Your task to perform on an android device: turn on sleep mode Image 0: 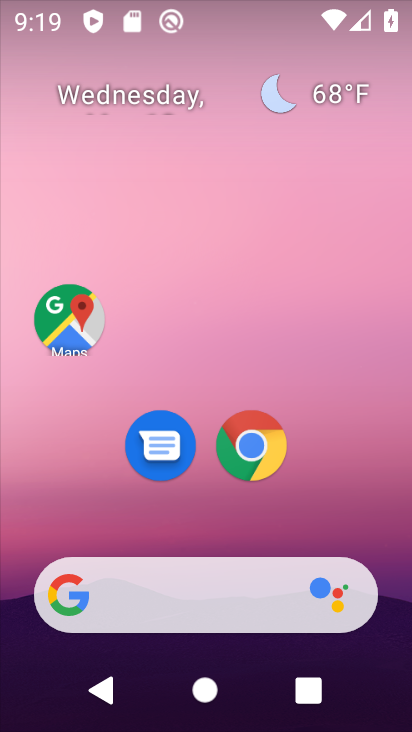
Step 0: drag from (373, 353) to (401, 3)
Your task to perform on an android device: turn on sleep mode Image 1: 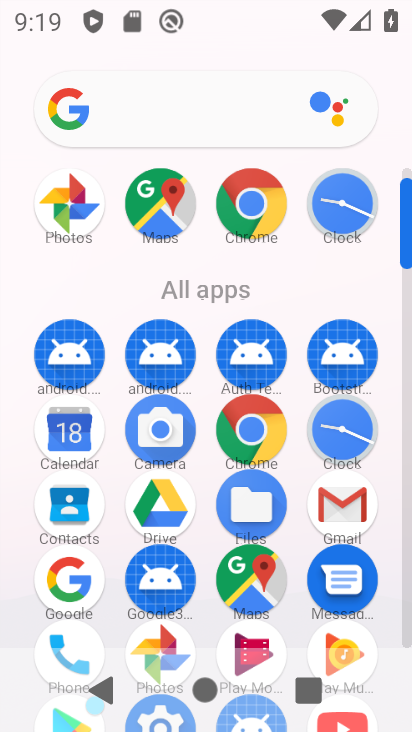
Step 1: drag from (388, 530) to (412, 184)
Your task to perform on an android device: turn on sleep mode Image 2: 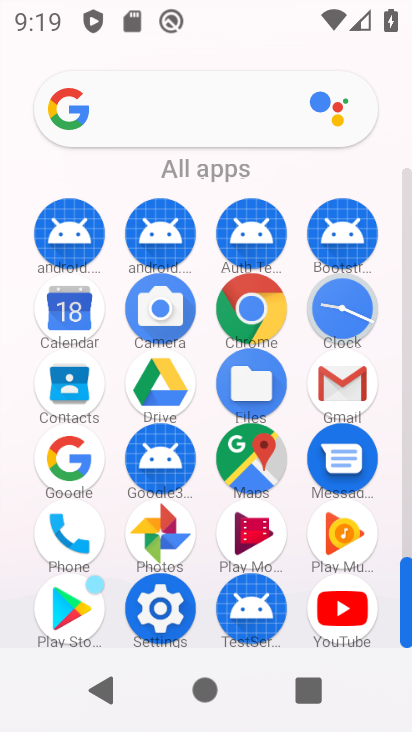
Step 2: click (165, 605)
Your task to perform on an android device: turn on sleep mode Image 3: 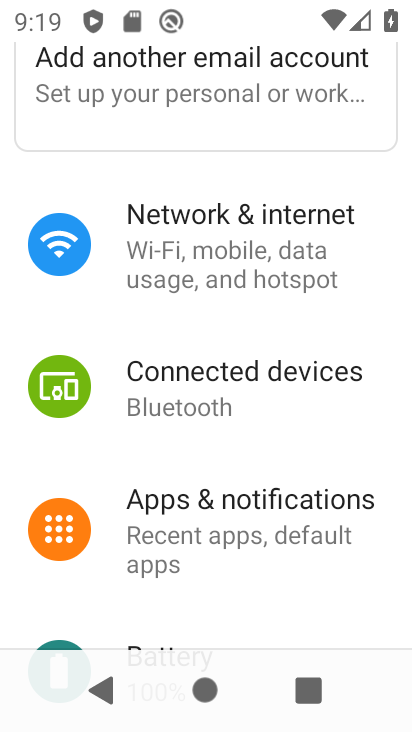
Step 3: drag from (271, 542) to (208, 181)
Your task to perform on an android device: turn on sleep mode Image 4: 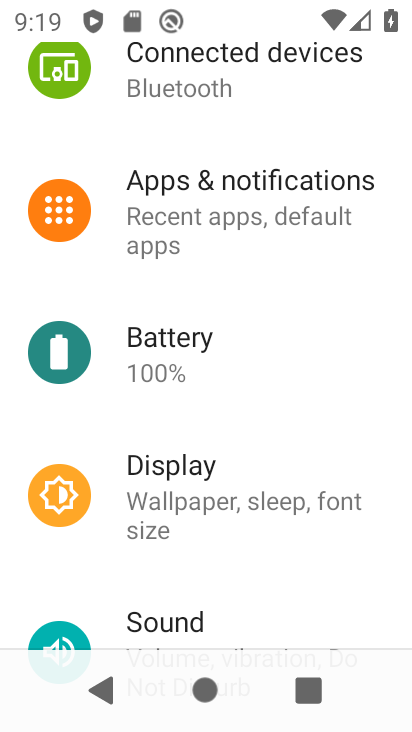
Step 4: drag from (231, 171) to (242, 571)
Your task to perform on an android device: turn on sleep mode Image 5: 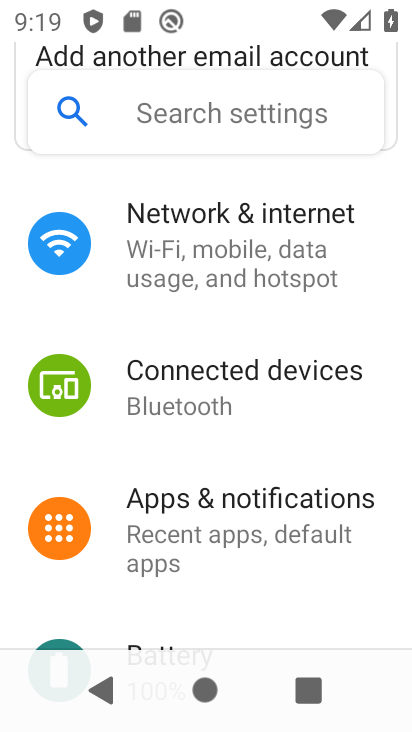
Step 5: drag from (245, 402) to (287, 198)
Your task to perform on an android device: turn on sleep mode Image 6: 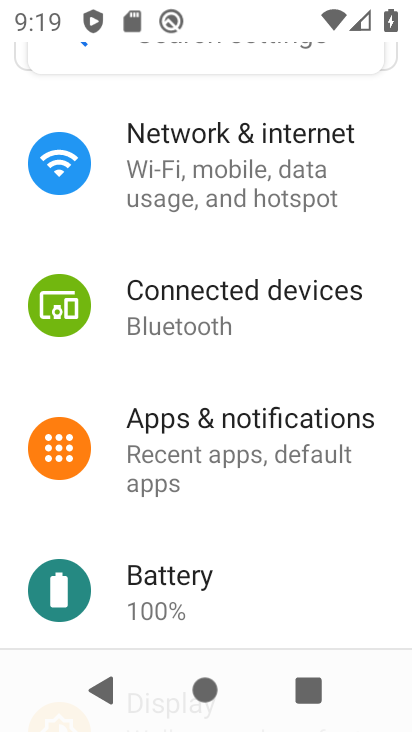
Step 6: drag from (273, 528) to (310, 155)
Your task to perform on an android device: turn on sleep mode Image 7: 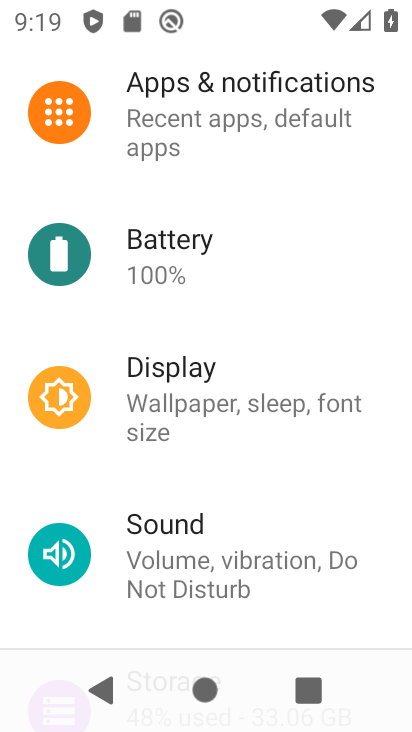
Step 7: click (166, 403)
Your task to perform on an android device: turn on sleep mode Image 8: 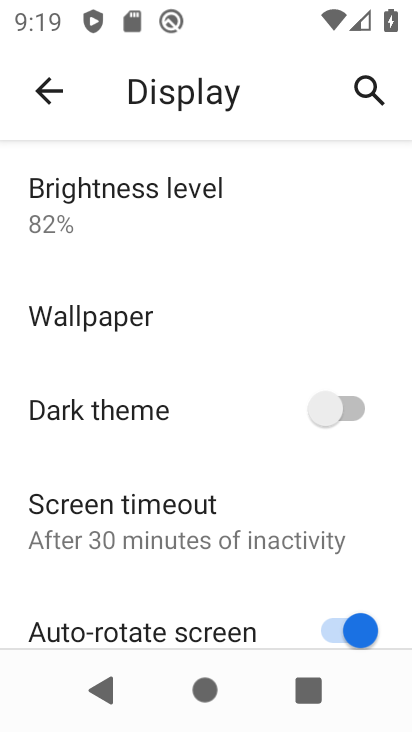
Step 8: drag from (194, 488) to (189, 274)
Your task to perform on an android device: turn on sleep mode Image 9: 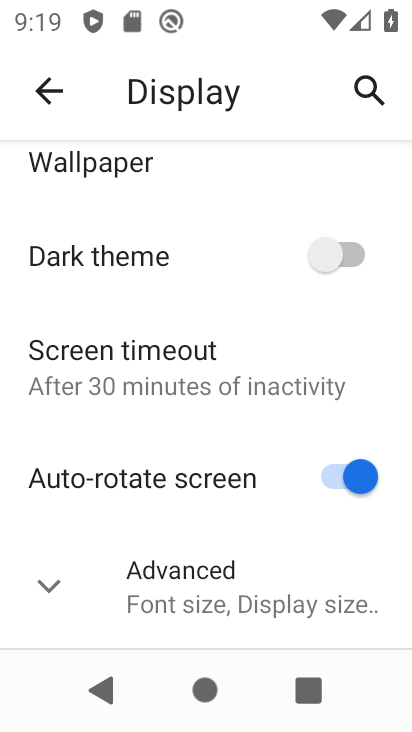
Step 9: drag from (201, 217) to (219, 563)
Your task to perform on an android device: turn on sleep mode Image 10: 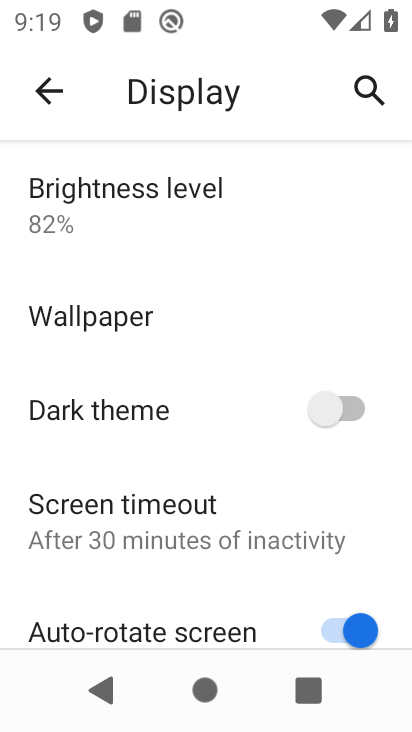
Step 10: click (126, 514)
Your task to perform on an android device: turn on sleep mode Image 11: 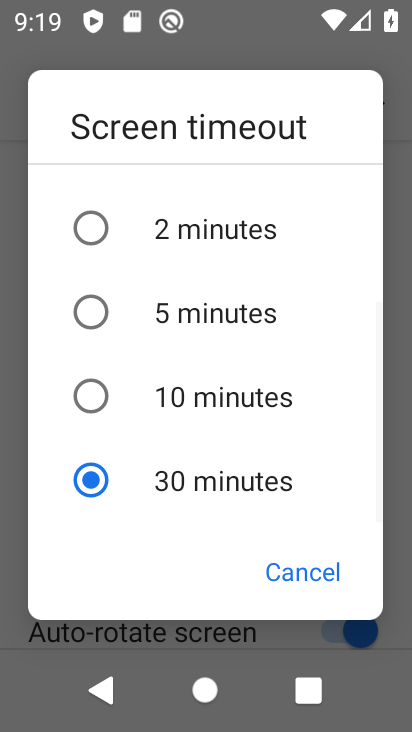
Step 11: task complete